Your task to perform on an android device: open device folders in google photos Image 0: 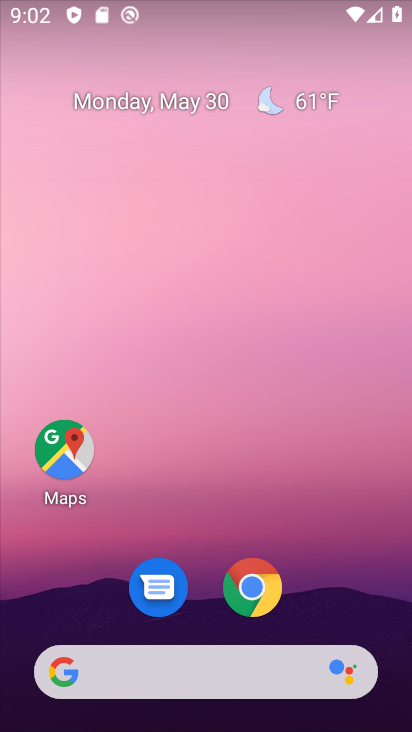
Step 0: drag from (190, 631) to (160, 601)
Your task to perform on an android device: open device folders in google photos Image 1: 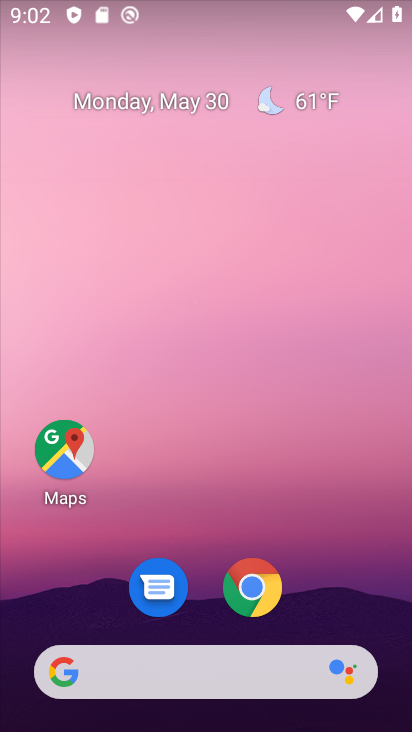
Step 1: drag from (190, 639) to (186, 33)
Your task to perform on an android device: open device folders in google photos Image 2: 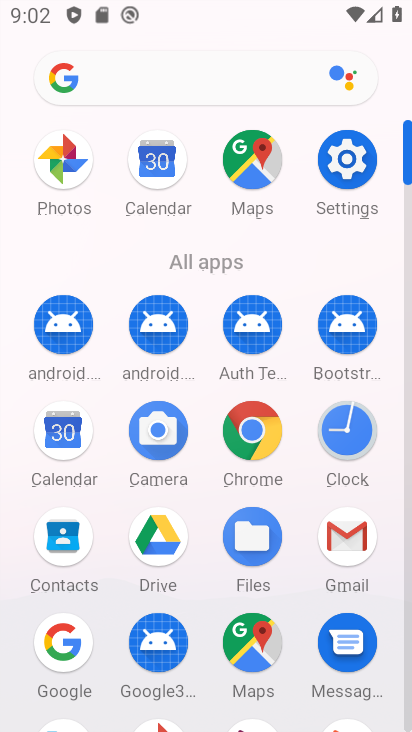
Step 2: click (73, 167)
Your task to perform on an android device: open device folders in google photos Image 3: 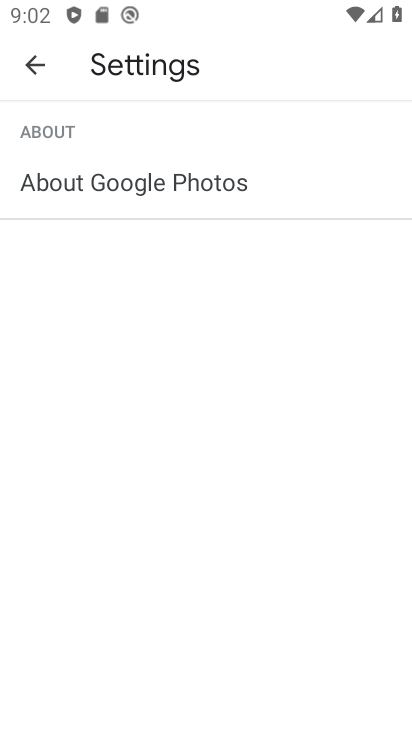
Step 3: click (38, 59)
Your task to perform on an android device: open device folders in google photos Image 4: 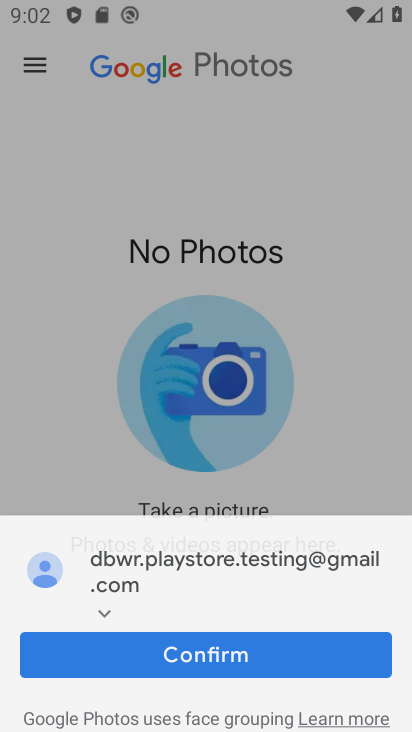
Step 4: click (38, 59)
Your task to perform on an android device: open device folders in google photos Image 5: 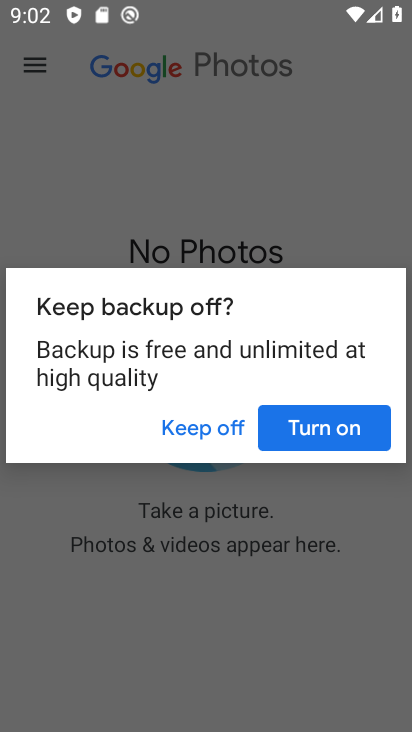
Step 5: click (314, 447)
Your task to perform on an android device: open device folders in google photos Image 6: 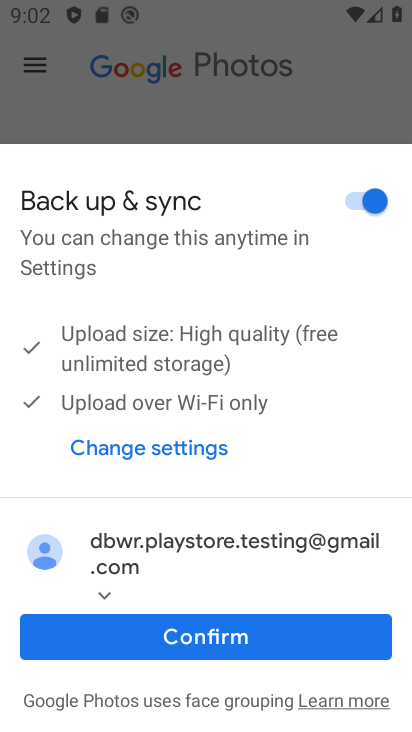
Step 6: click (261, 644)
Your task to perform on an android device: open device folders in google photos Image 7: 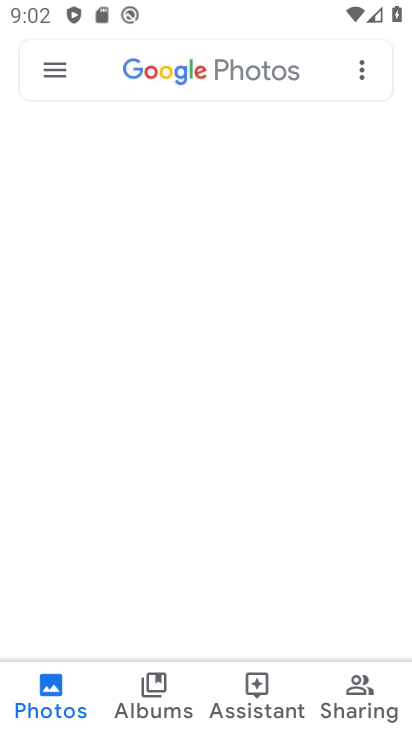
Step 7: click (53, 70)
Your task to perform on an android device: open device folders in google photos Image 8: 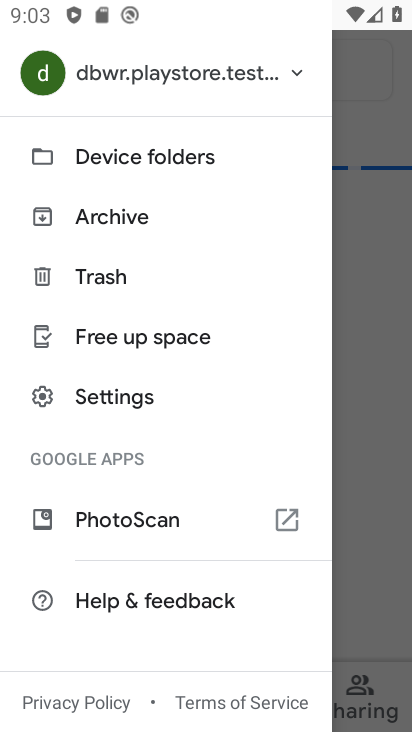
Step 8: click (86, 159)
Your task to perform on an android device: open device folders in google photos Image 9: 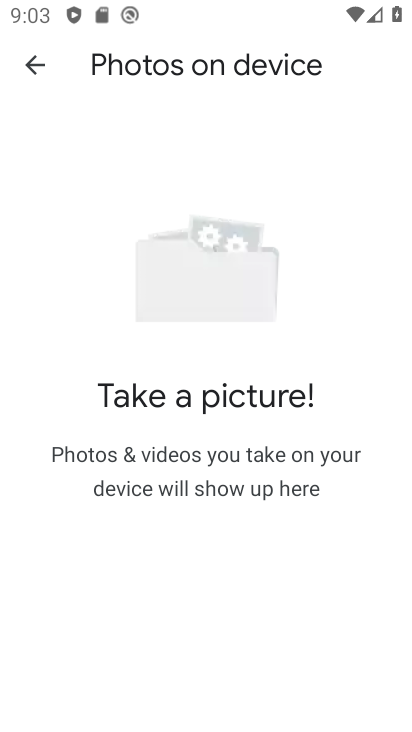
Step 9: task complete